Your task to perform on an android device: Open Reddit.com Image 0: 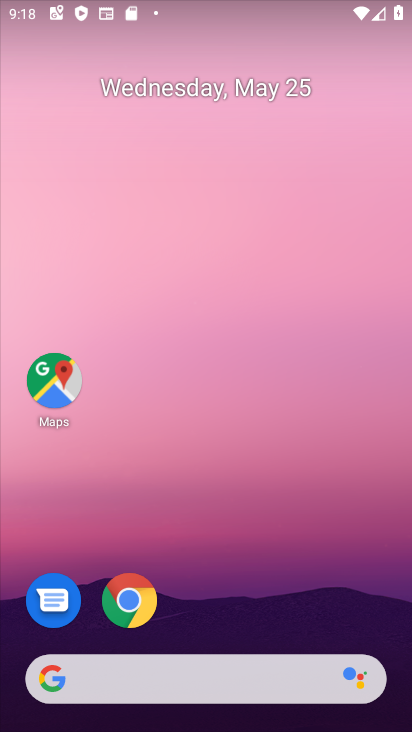
Step 0: drag from (244, 549) to (230, 6)
Your task to perform on an android device: Open Reddit.com Image 1: 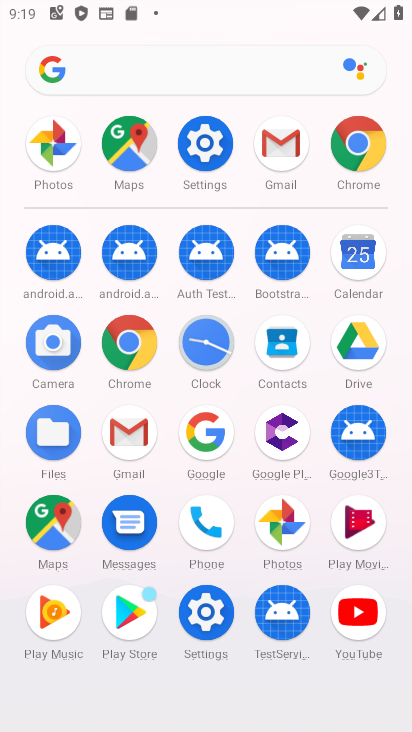
Step 1: click (129, 337)
Your task to perform on an android device: Open Reddit.com Image 2: 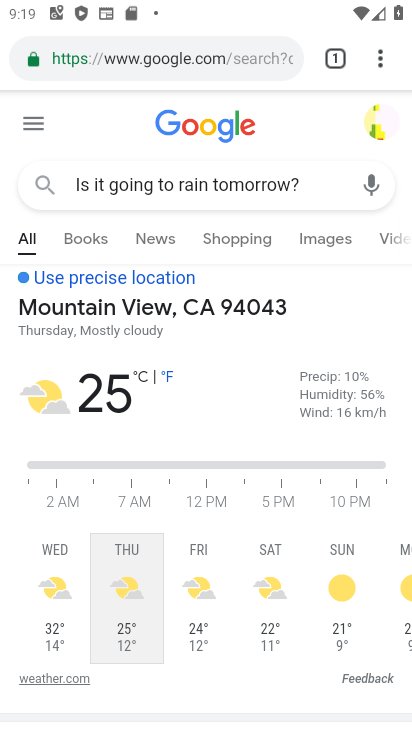
Step 2: click (123, 55)
Your task to perform on an android device: Open Reddit.com Image 3: 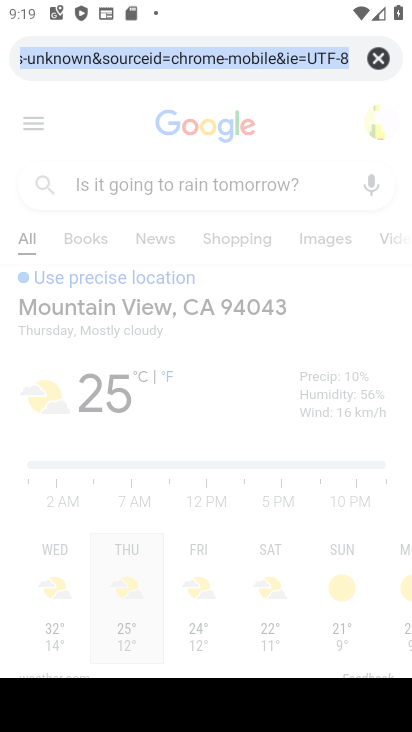
Step 3: click (375, 59)
Your task to perform on an android device: Open Reddit.com Image 4: 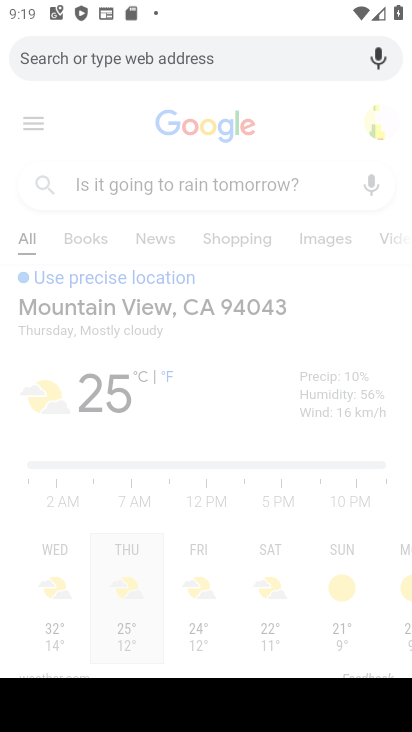
Step 4: type "Reddit.com"
Your task to perform on an android device: Open Reddit.com Image 5: 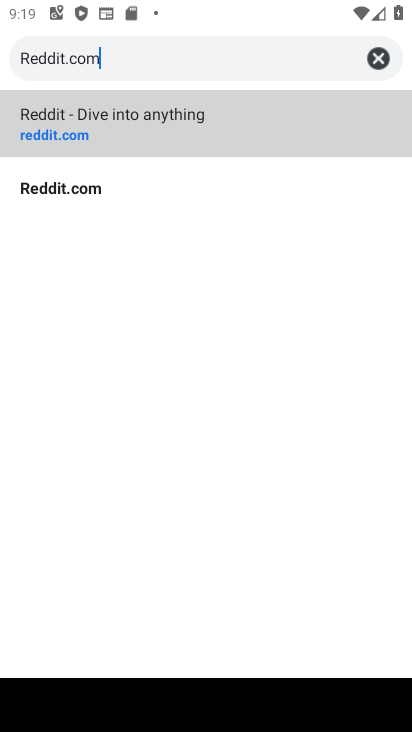
Step 5: type ""
Your task to perform on an android device: Open Reddit.com Image 6: 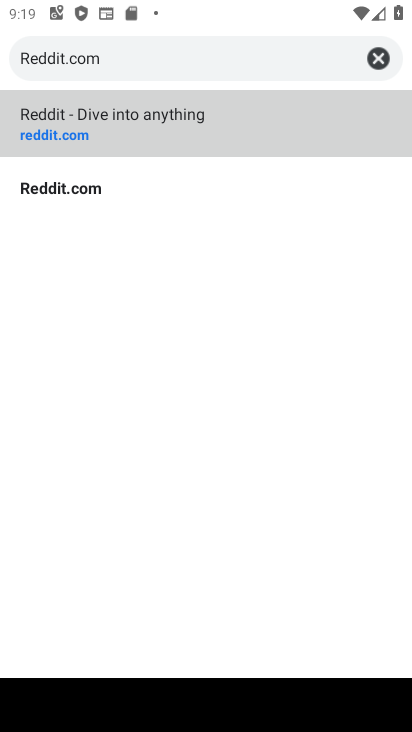
Step 6: click (138, 124)
Your task to perform on an android device: Open Reddit.com Image 7: 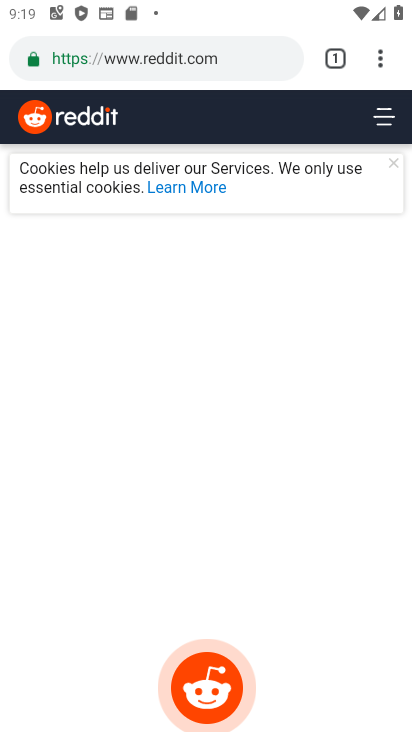
Step 7: task complete